Your task to perform on an android device: turn off data saver in the chrome app Image 0: 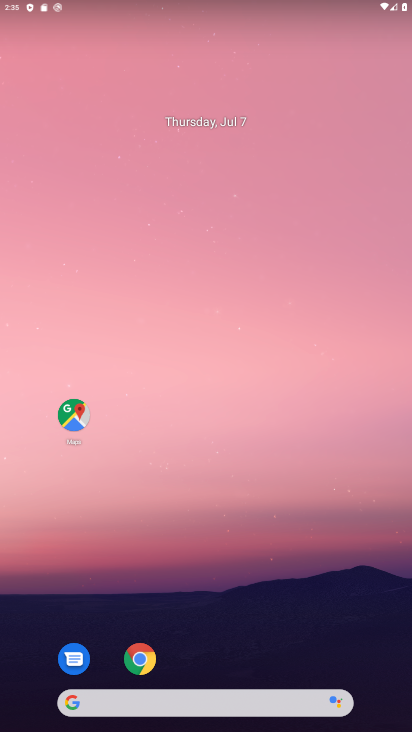
Step 0: drag from (295, 632) to (143, 53)
Your task to perform on an android device: turn off data saver in the chrome app Image 1: 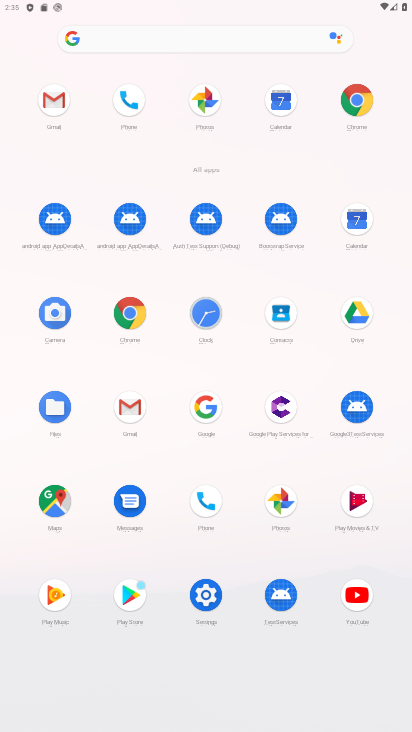
Step 1: click (364, 102)
Your task to perform on an android device: turn off data saver in the chrome app Image 2: 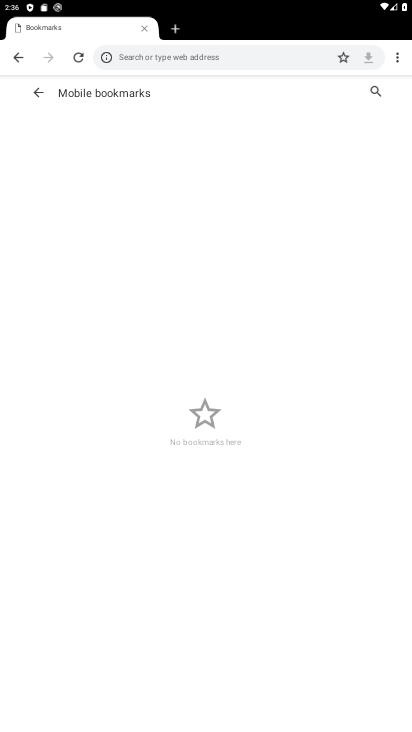
Step 2: click (394, 61)
Your task to perform on an android device: turn off data saver in the chrome app Image 3: 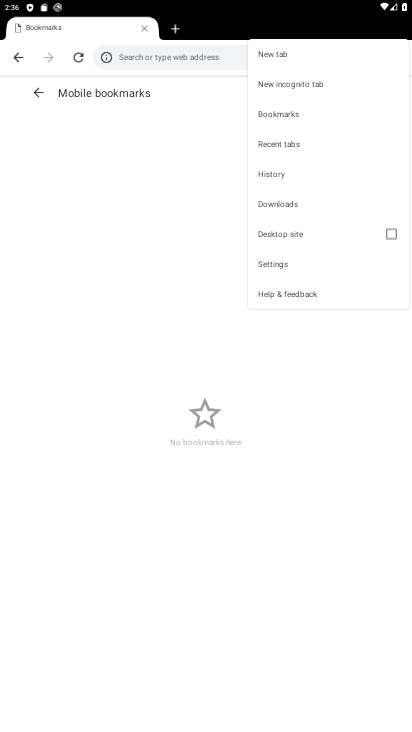
Step 3: click (295, 265)
Your task to perform on an android device: turn off data saver in the chrome app Image 4: 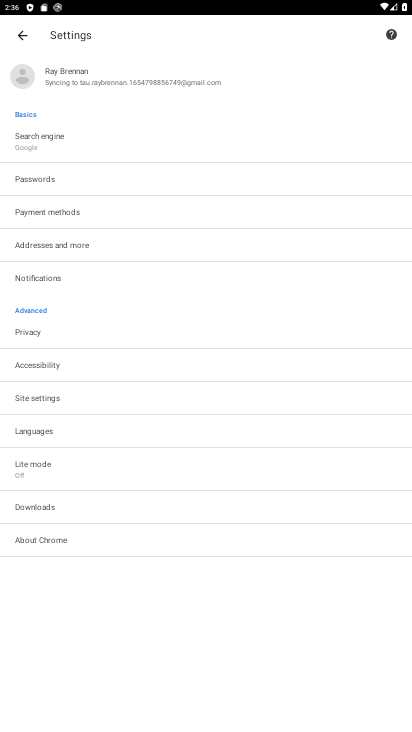
Step 4: click (158, 468)
Your task to perform on an android device: turn off data saver in the chrome app Image 5: 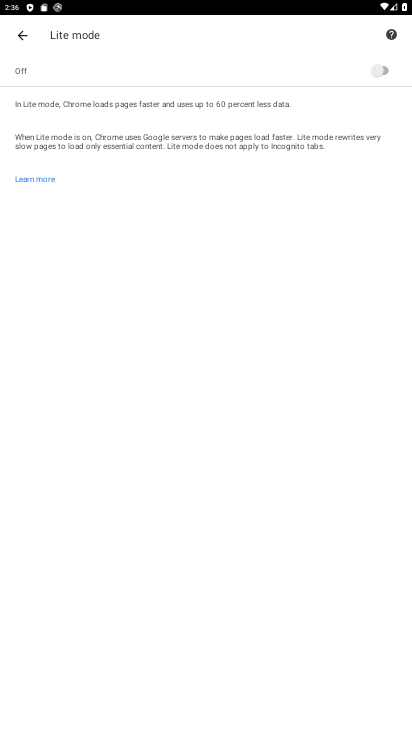
Step 5: task complete